Your task to perform on an android device: Do I have any events tomorrow? Image 0: 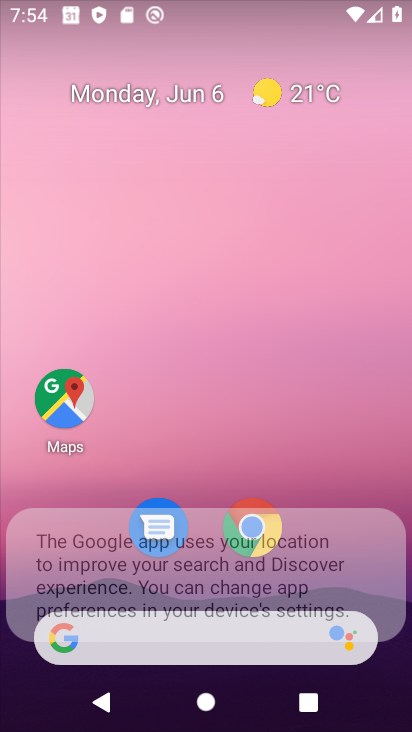
Step 0: drag from (226, 398) to (277, 21)
Your task to perform on an android device: Do I have any events tomorrow? Image 1: 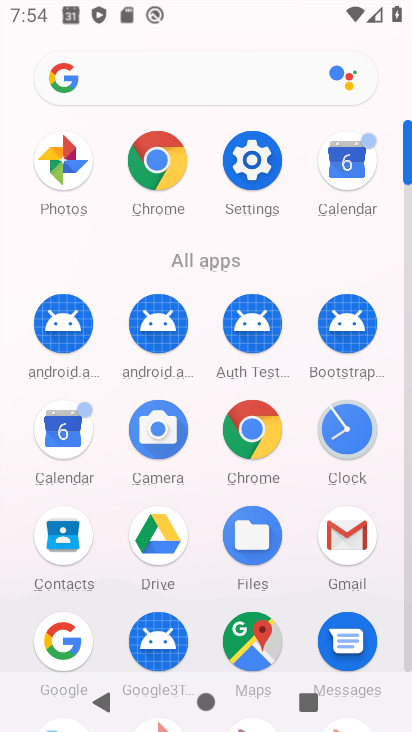
Step 1: click (68, 453)
Your task to perform on an android device: Do I have any events tomorrow? Image 2: 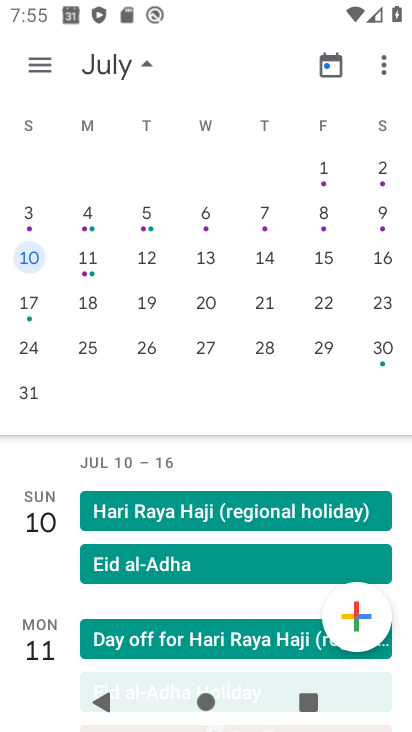
Step 2: drag from (34, 301) to (405, 287)
Your task to perform on an android device: Do I have any events tomorrow? Image 3: 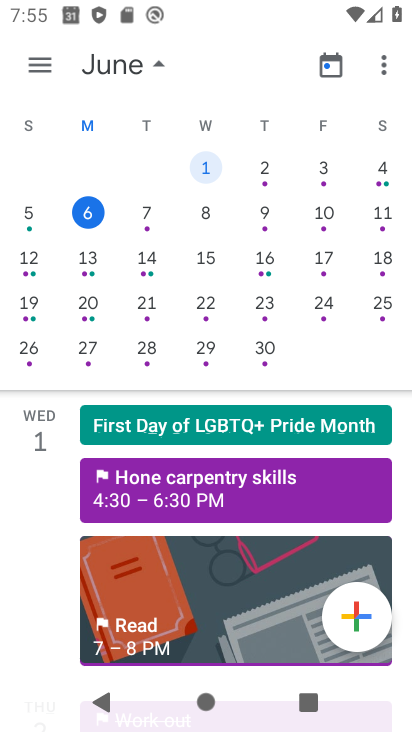
Step 3: click (149, 227)
Your task to perform on an android device: Do I have any events tomorrow? Image 4: 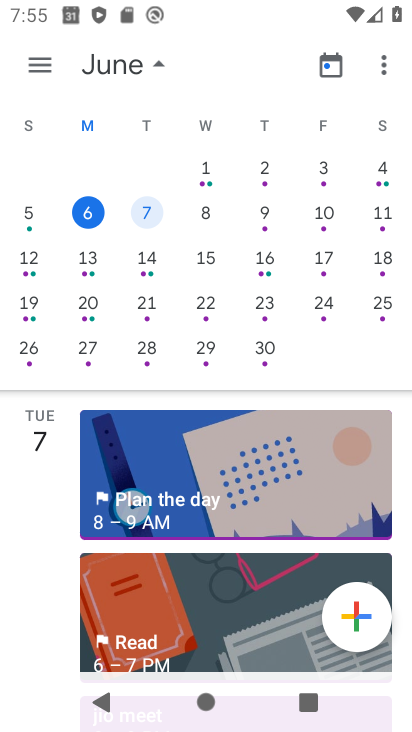
Step 4: task complete